Your task to perform on an android device: Open notification settings Image 0: 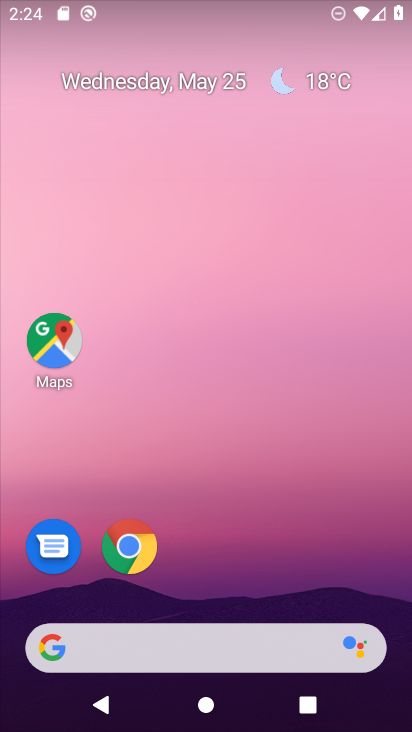
Step 0: click (215, 168)
Your task to perform on an android device: Open notification settings Image 1: 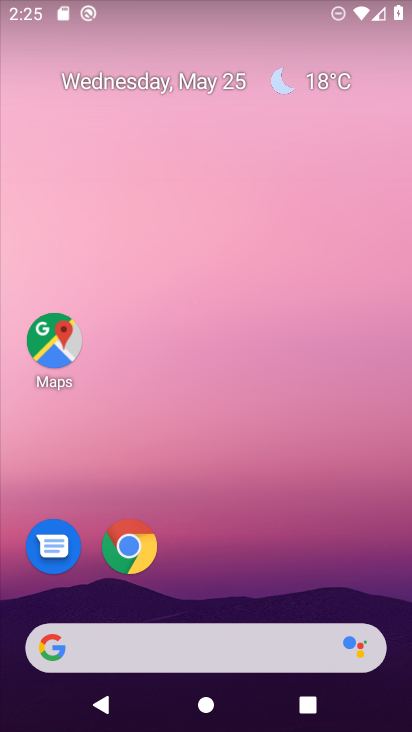
Step 1: drag from (254, 586) to (284, 7)
Your task to perform on an android device: Open notification settings Image 2: 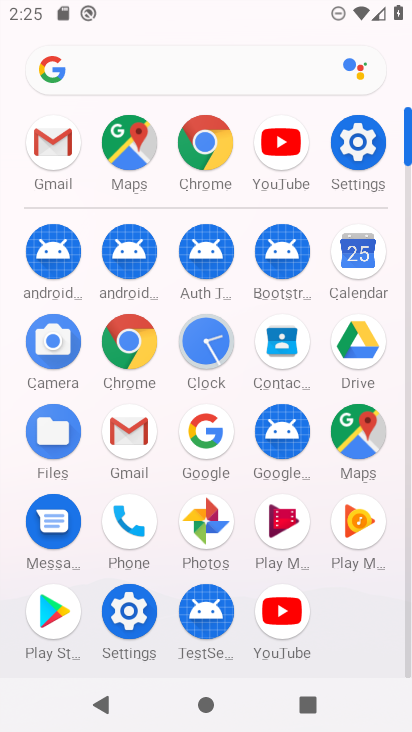
Step 2: click (117, 622)
Your task to perform on an android device: Open notification settings Image 3: 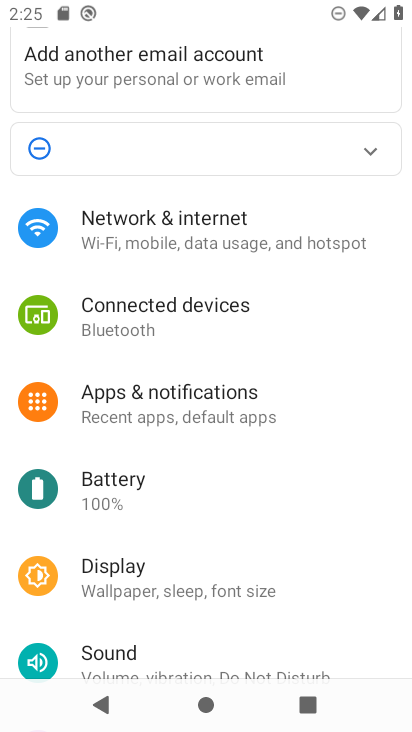
Step 3: click (184, 398)
Your task to perform on an android device: Open notification settings Image 4: 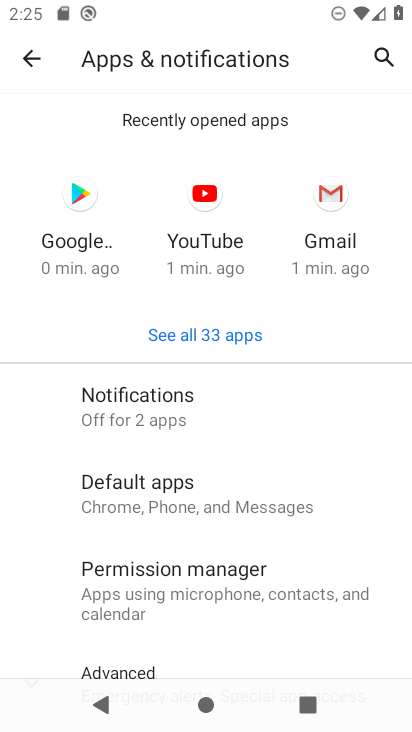
Step 4: click (183, 406)
Your task to perform on an android device: Open notification settings Image 5: 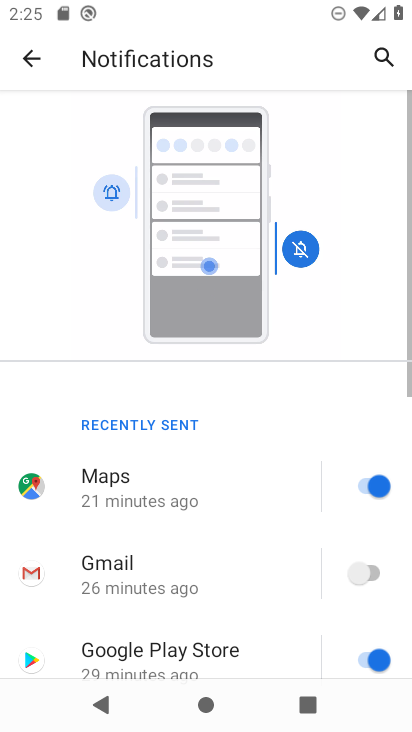
Step 5: task complete